Your task to perform on an android device: toggle notifications settings in the gmail app Image 0: 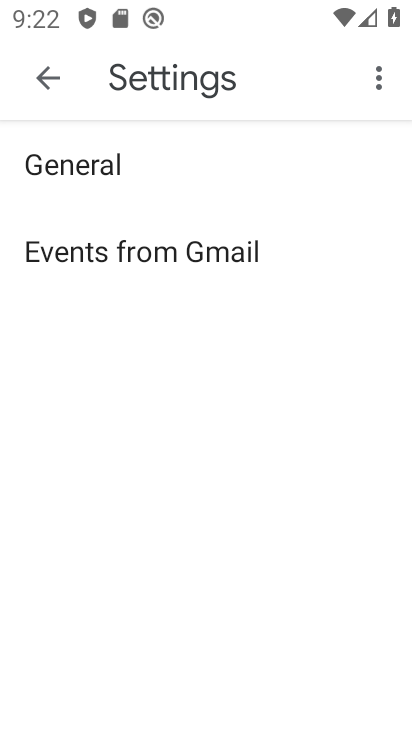
Step 0: press home button
Your task to perform on an android device: toggle notifications settings in the gmail app Image 1: 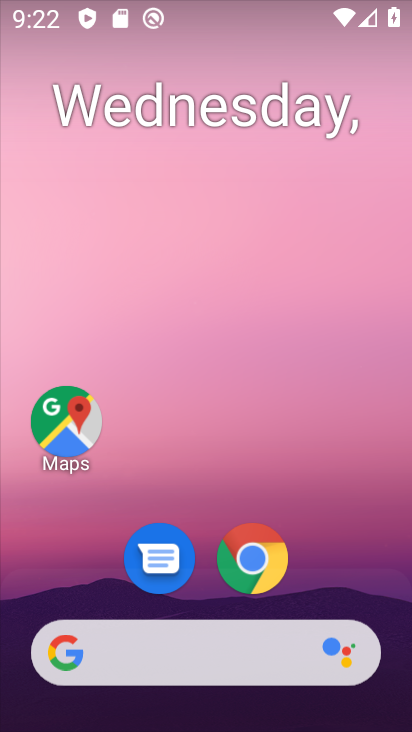
Step 1: drag from (113, 281) to (195, 108)
Your task to perform on an android device: toggle notifications settings in the gmail app Image 2: 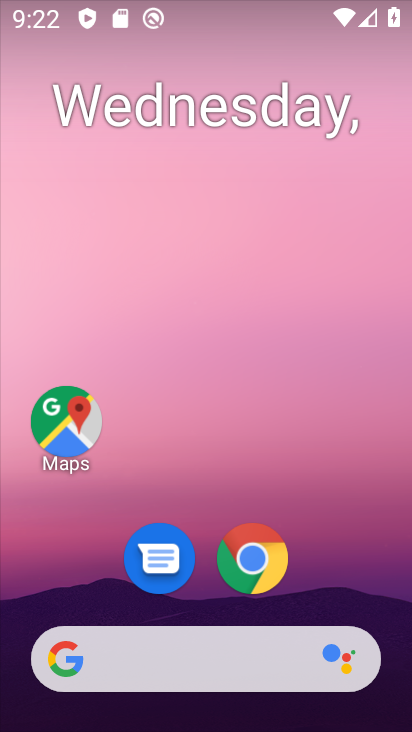
Step 2: drag from (26, 545) to (349, 100)
Your task to perform on an android device: toggle notifications settings in the gmail app Image 3: 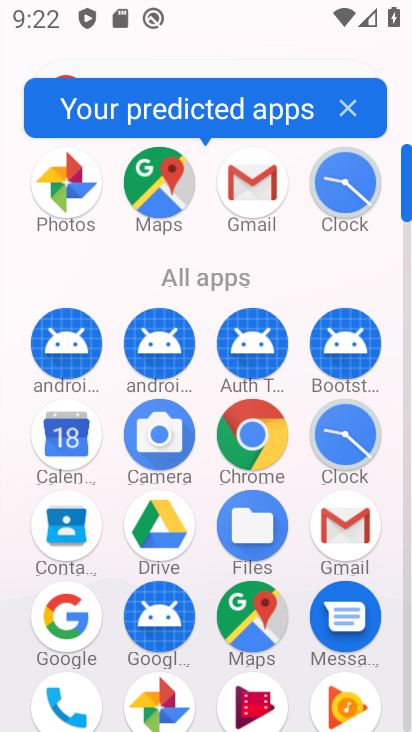
Step 3: click (244, 199)
Your task to perform on an android device: toggle notifications settings in the gmail app Image 4: 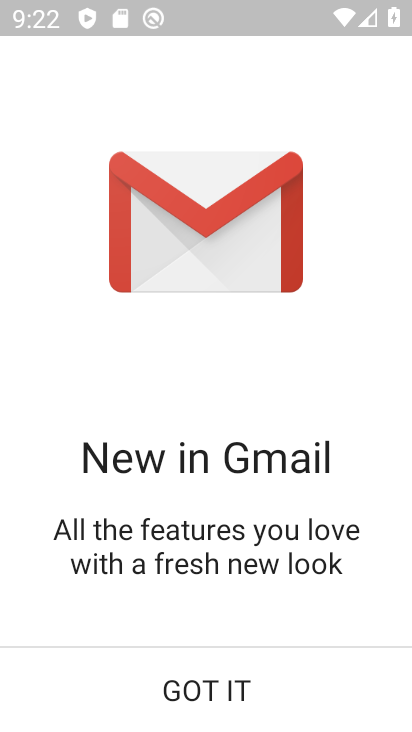
Step 4: click (165, 682)
Your task to perform on an android device: toggle notifications settings in the gmail app Image 5: 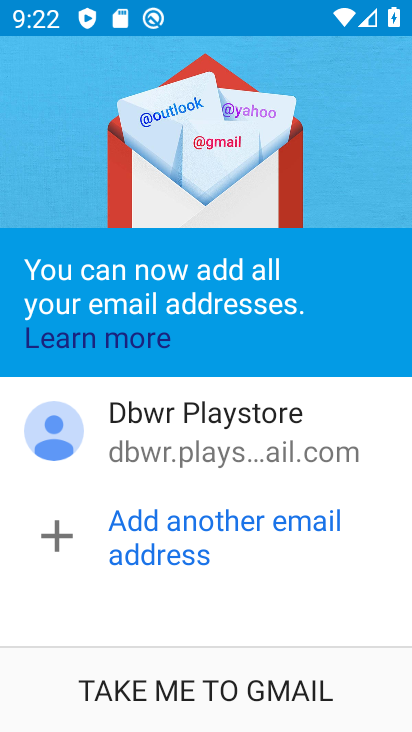
Step 5: click (217, 687)
Your task to perform on an android device: toggle notifications settings in the gmail app Image 6: 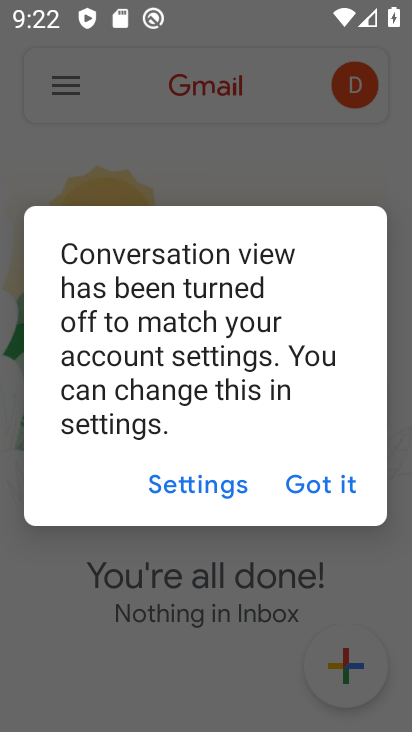
Step 6: click (305, 485)
Your task to perform on an android device: toggle notifications settings in the gmail app Image 7: 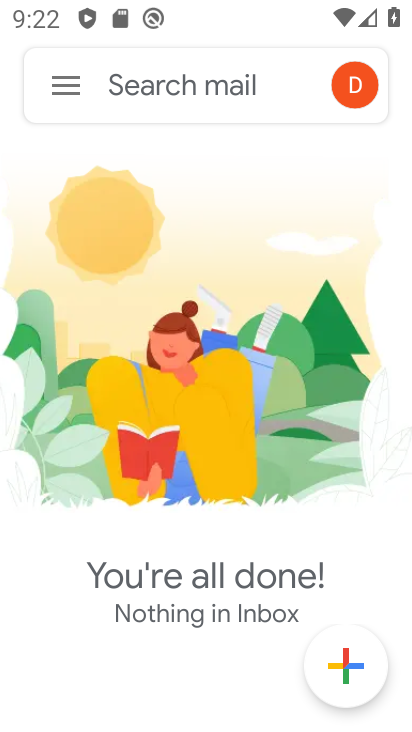
Step 7: click (61, 108)
Your task to perform on an android device: toggle notifications settings in the gmail app Image 8: 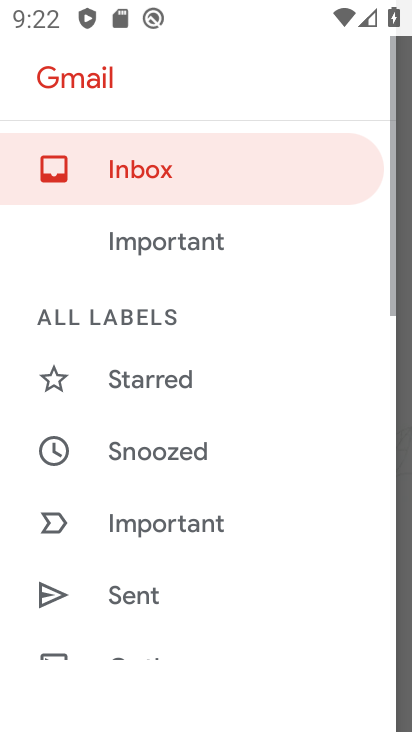
Step 8: drag from (164, 656) to (232, 127)
Your task to perform on an android device: toggle notifications settings in the gmail app Image 9: 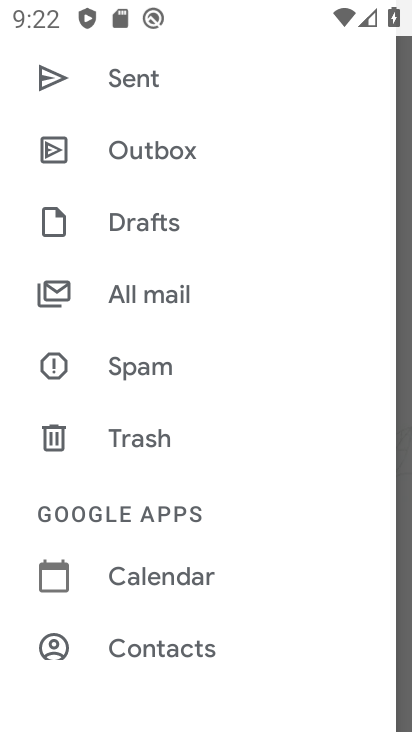
Step 9: drag from (128, 640) to (225, 259)
Your task to perform on an android device: toggle notifications settings in the gmail app Image 10: 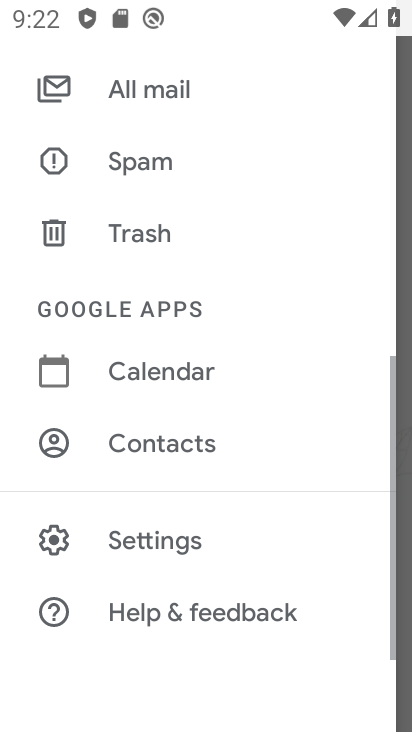
Step 10: click (170, 544)
Your task to perform on an android device: toggle notifications settings in the gmail app Image 11: 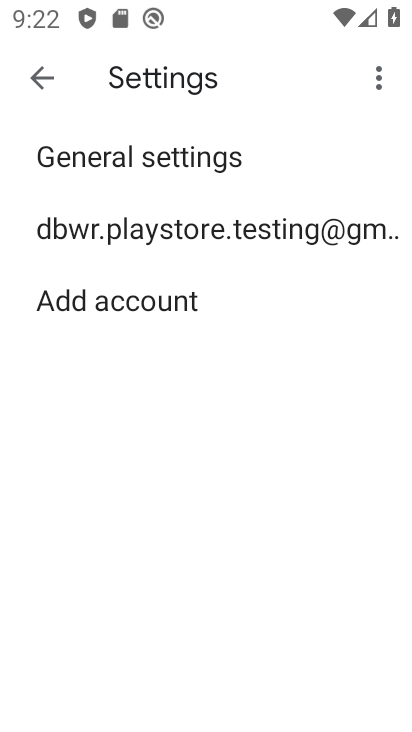
Step 11: click (221, 209)
Your task to perform on an android device: toggle notifications settings in the gmail app Image 12: 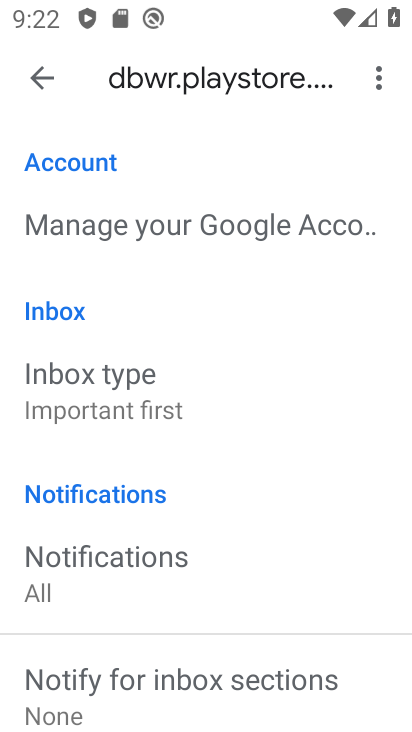
Step 12: drag from (98, 641) to (191, 306)
Your task to perform on an android device: toggle notifications settings in the gmail app Image 13: 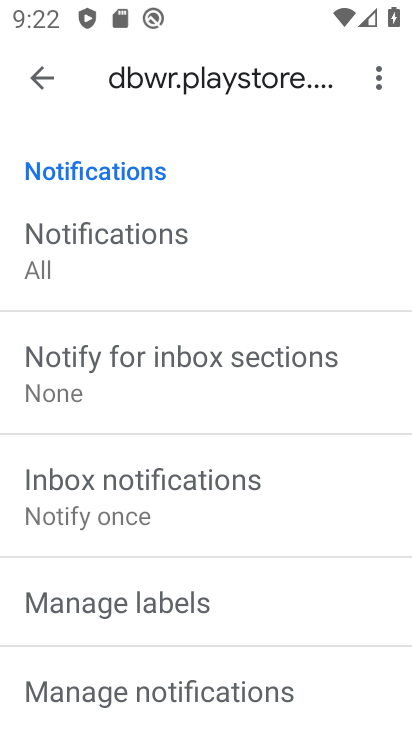
Step 13: click (95, 692)
Your task to perform on an android device: toggle notifications settings in the gmail app Image 14: 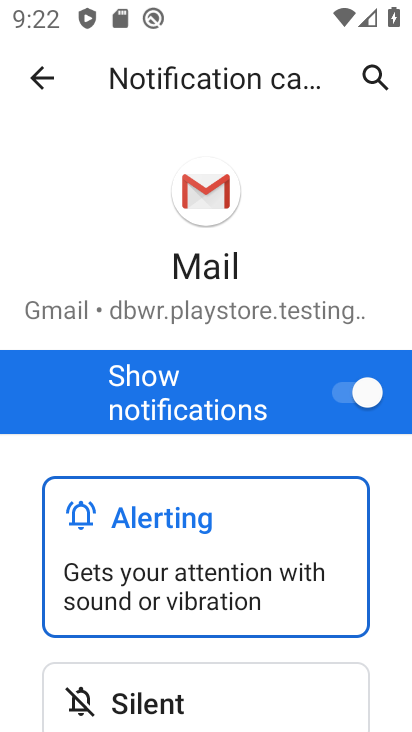
Step 14: click (355, 394)
Your task to perform on an android device: toggle notifications settings in the gmail app Image 15: 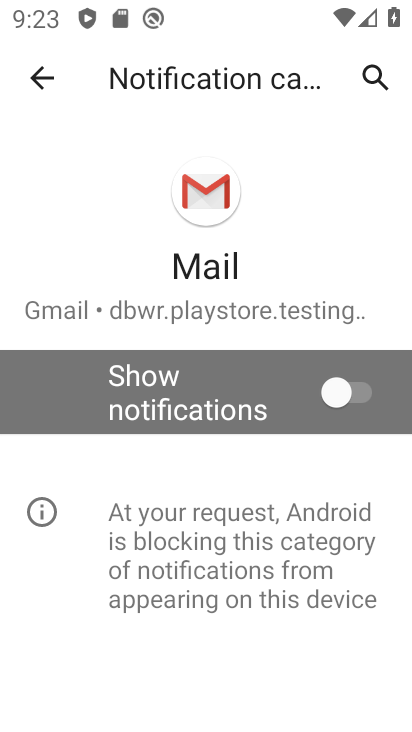
Step 15: task complete